Your task to perform on an android device: add a label to a message in the gmail app Image 0: 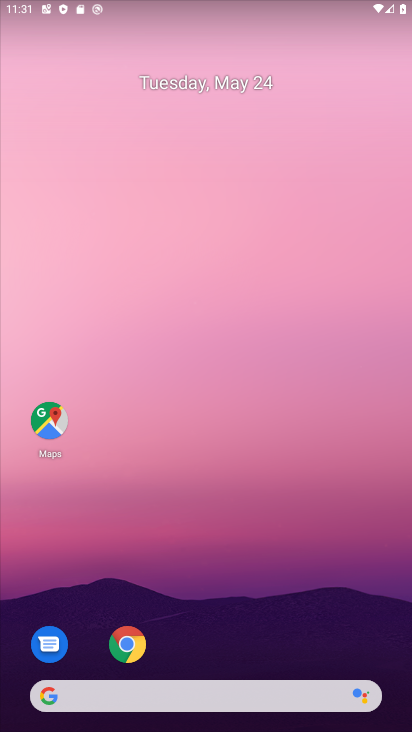
Step 0: drag from (158, 658) to (261, 173)
Your task to perform on an android device: add a label to a message in the gmail app Image 1: 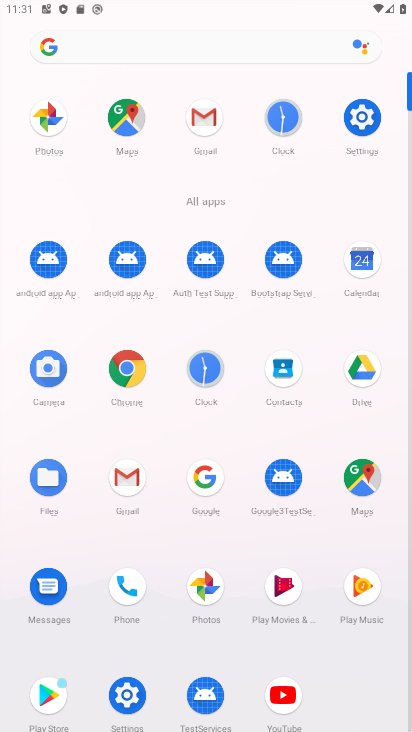
Step 1: drag from (112, 637) to (214, 348)
Your task to perform on an android device: add a label to a message in the gmail app Image 2: 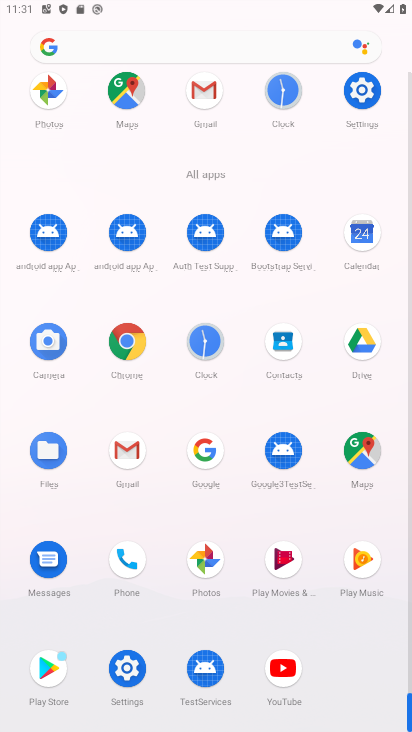
Step 2: click (125, 459)
Your task to perform on an android device: add a label to a message in the gmail app Image 3: 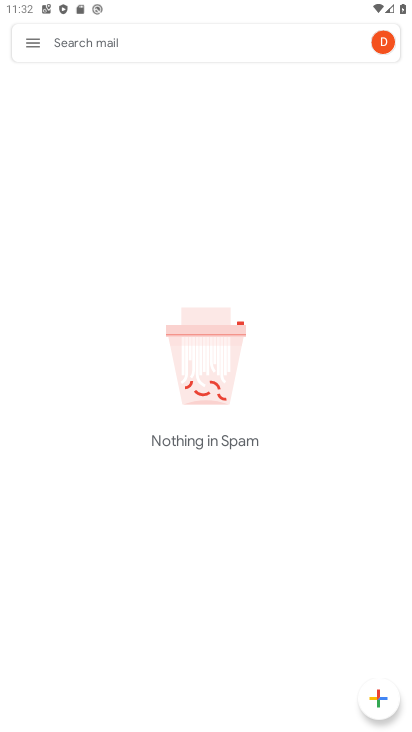
Step 3: click (46, 34)
Your task to perform on an android device: add a label to a message in the gmail app Image 4: 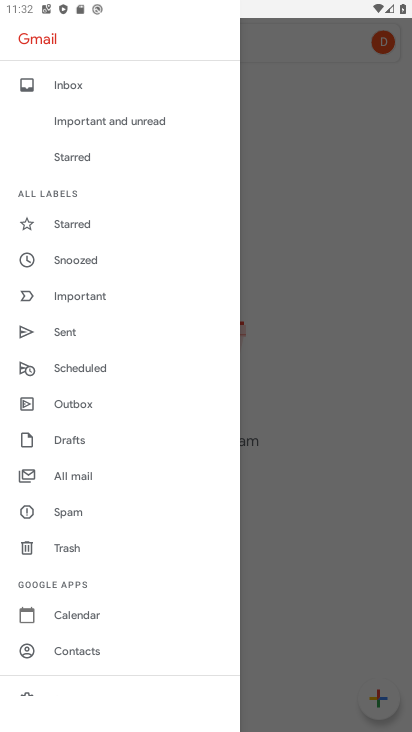
Step 4: click (88, 472)
Your task to perform on an android device: add a label to a message in the gmail app Image 5: 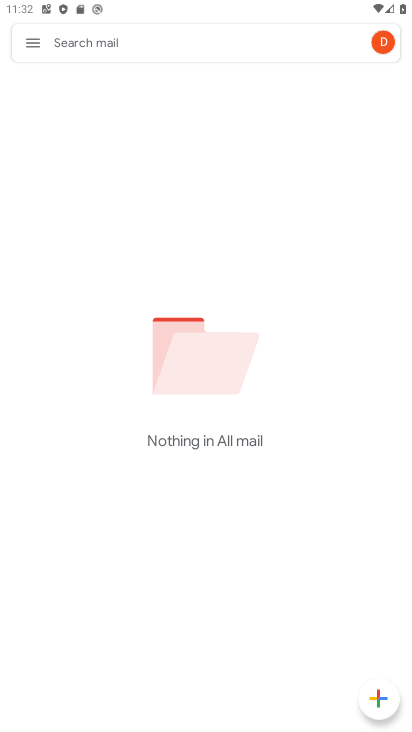
Step 5: task complete